Your task to perform on an android device: toggle improve location accuracy Image 0: 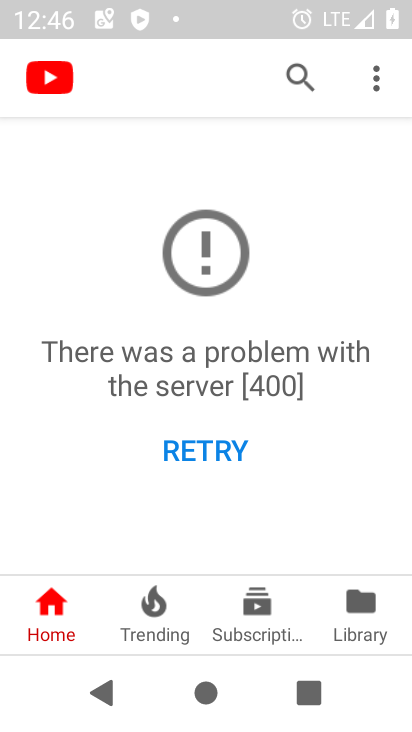
Step 0: press home button
Your task to perform on an android device: toggle improve location accuracy Image 1: 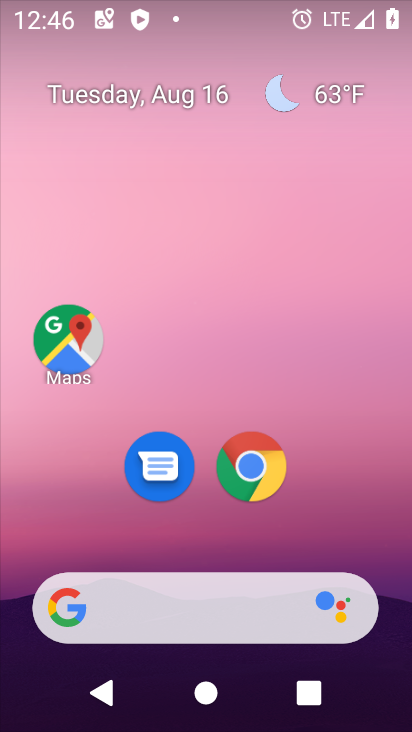
Step 1: drag from (144, 570) to (251, 90)
Your task to perform on an android device: toggle improve location accuracy Image 2: 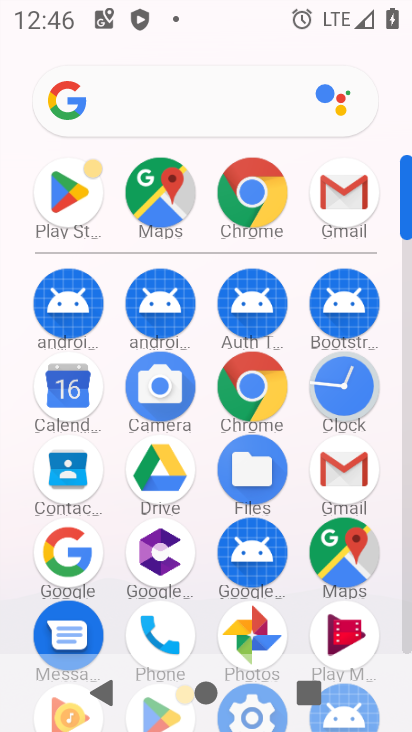
Step 2: drag from (206, 635) to (236, 234)
Your task to perform on an android device: toggle improve location accuracy Image 3: 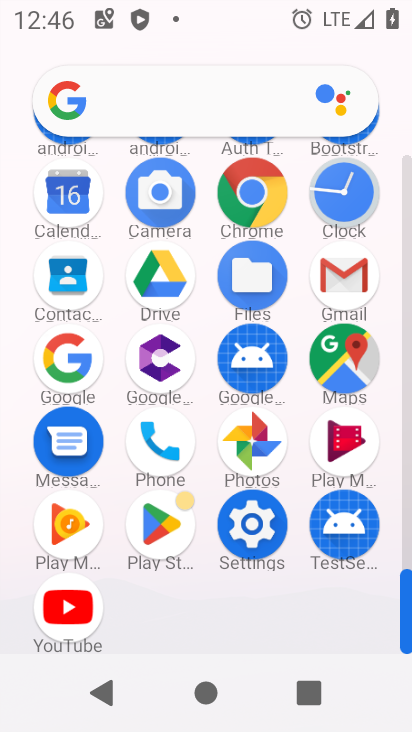
Step 3: click (257, 516)
Your task to perform on an android device: toggle improve location accuracy Image 4: 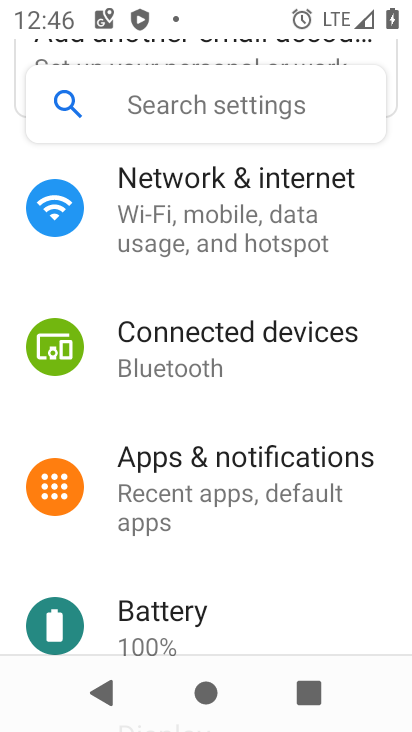
Step 4: drag from (202, 582) to (239, 151)
Your task to perform on an android device: toggle improve location accuracy Image 5: 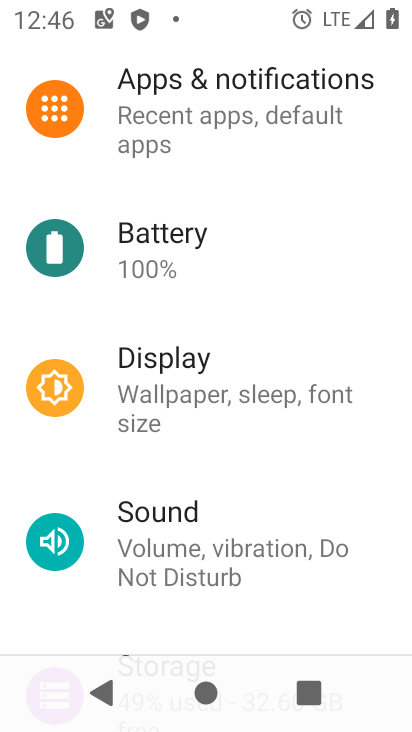
Step 5: drag from (147, 538) to (212, 132)
Your task to perform on an android device: toggle improve location accuracy Image 6: 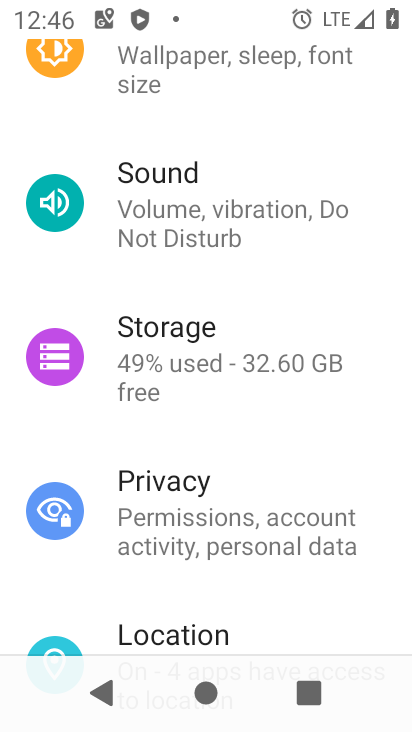
Step 6: click (170, 612)
Your task to perform on an android device: toggle improve location accuracy Image 7: 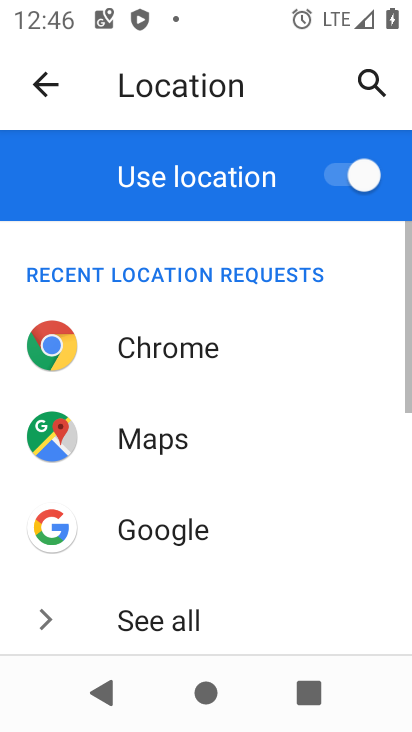
Step 7: drag from (179, 584) to (237, 139)
Your task to perform on an android device: toggle improve location accuracy Image 8: 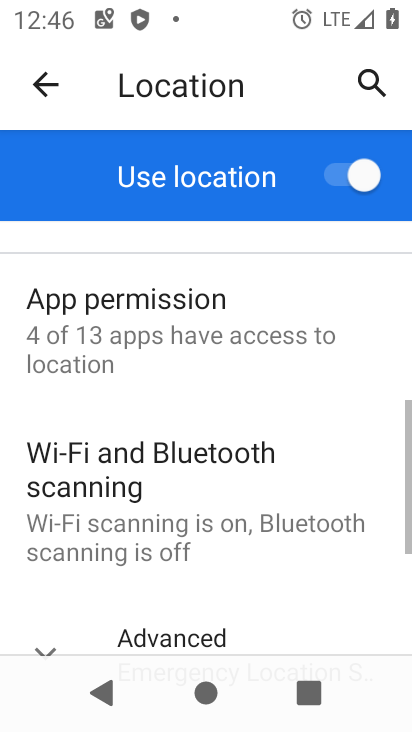
Step 8: click (169, 627)
Your task to perform on an android device: toggle improve location accuracy Image 9: 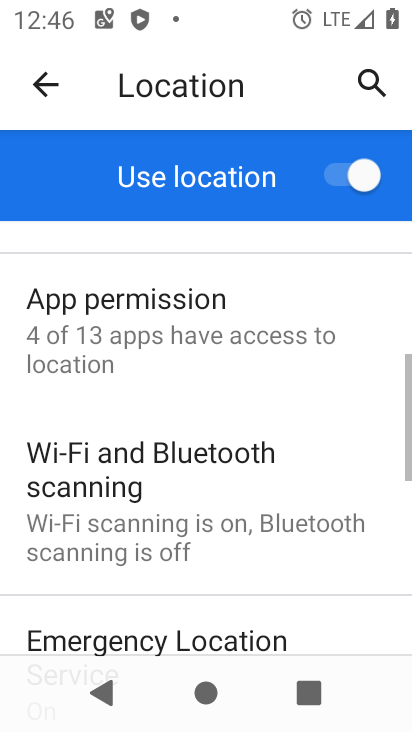
Step 9: drag from (236, 523) to (281, 195)
Your task to perform on an android device: toggle improve location accuracy Image 10: 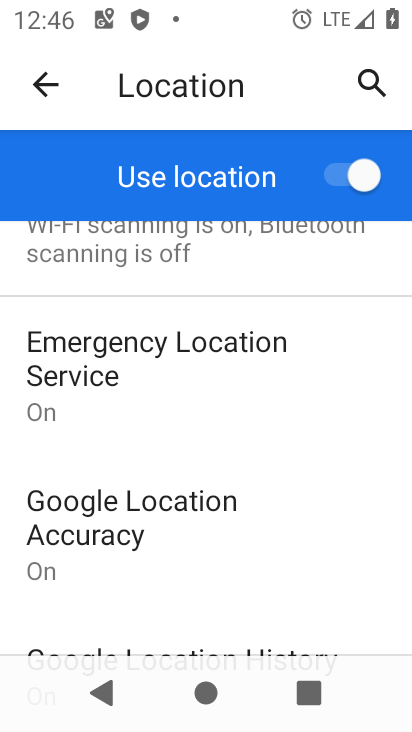
Step 10: click (173, 503)
Your task to perform on an android device: toggle improve location accuracy Image 11: 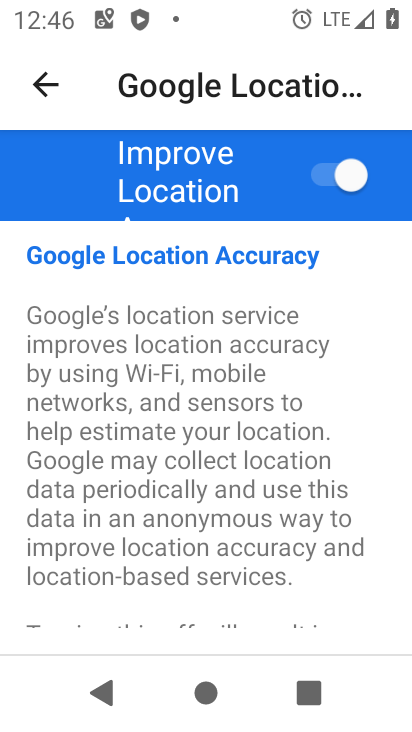
Step 11: click (309, 181)
Your task to perform on an android device: toggle improve location accuracy Image 12: 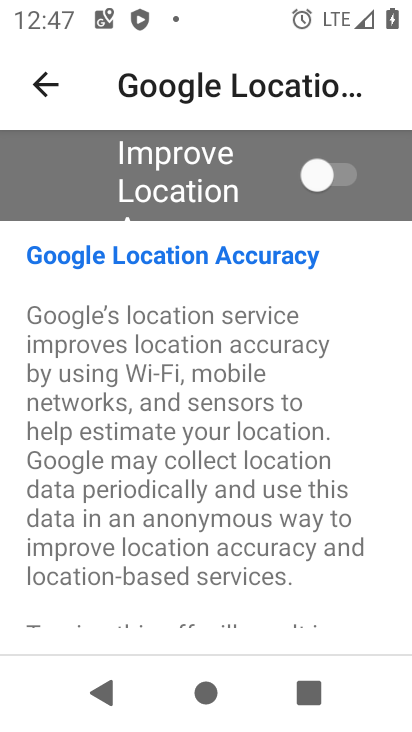
Step 12: task complete